Your task to perform on an android device: set default search engine in the chrome app Image 0: 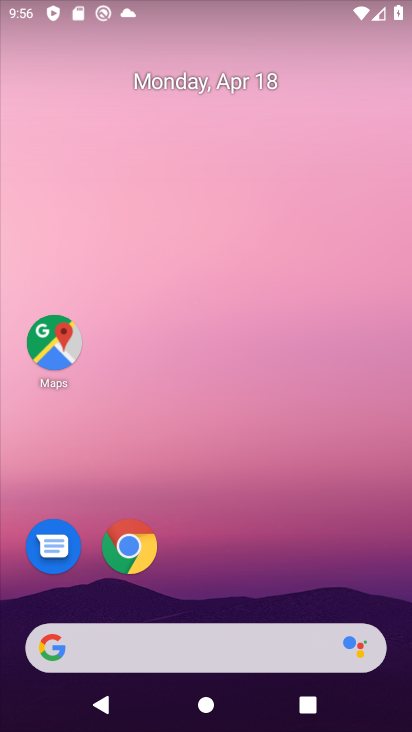
Step 0: click (129, 545)
Your task to perform on an android device: set default search engine in the chrome app Image 1: 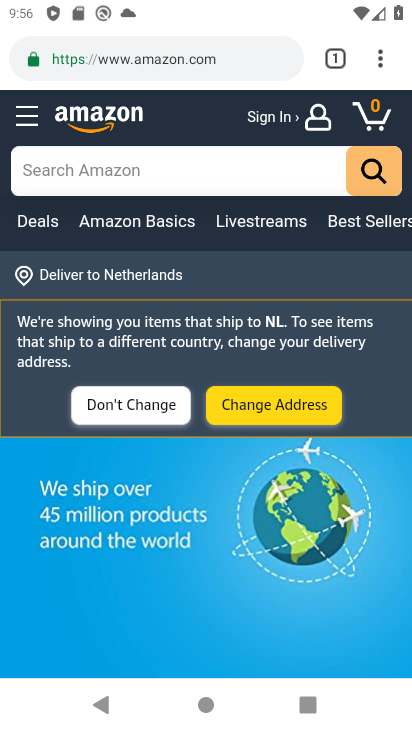
Step 1: click (379, 61)
Your task to perform on an android device: set default search engine in the chrome app Image 2: 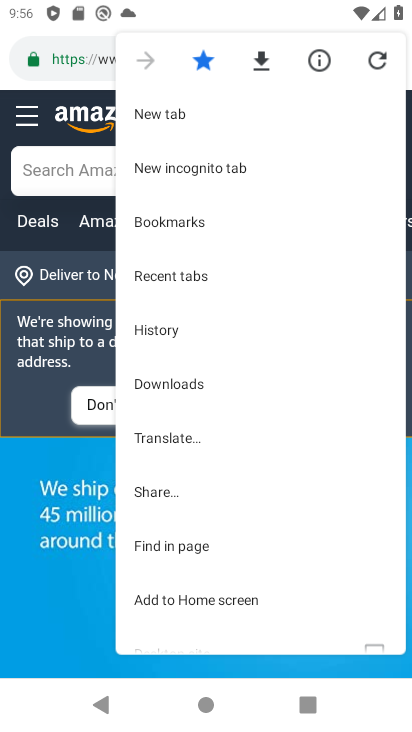
Step 2: drag from (213, 573) to (208, 200)
Your task to perform on an android device: set default search engine in the chrome app Image 3: 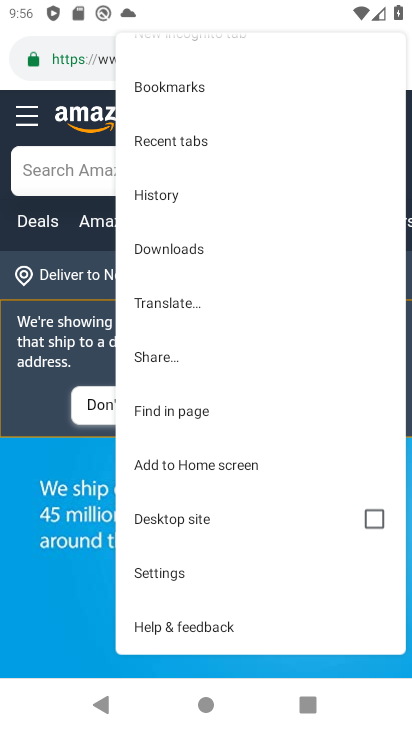
Step 3: click (159, 571)
Your task to perform on an android device: set default search engine in the chrome app Image 4: 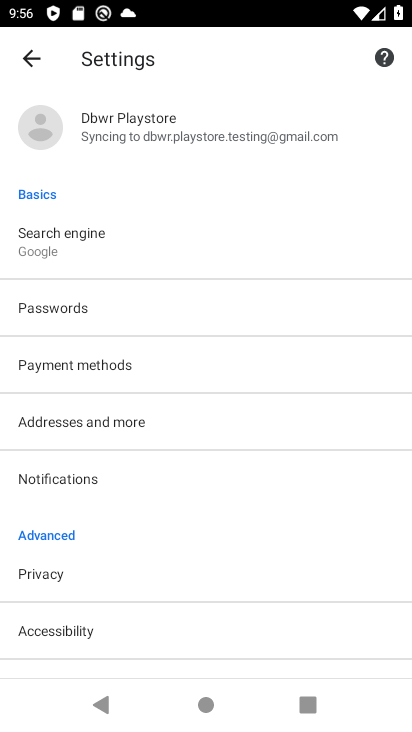
Step 4: click (55, 248)
Your task to perform on an android device: set default search engine in the chrome app Image 5: 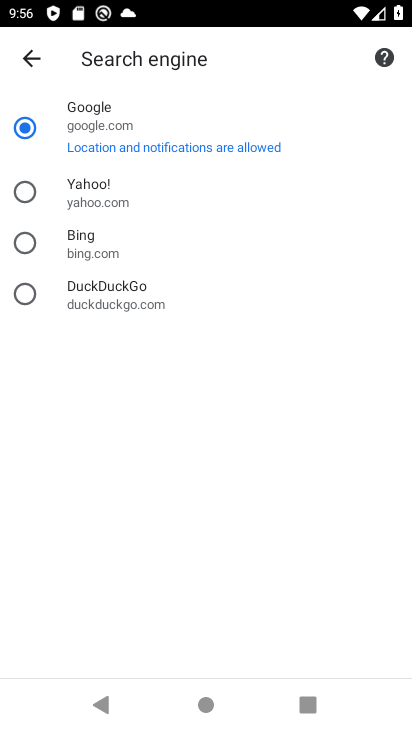
Step 5: click (26, 193)
Your task to perform on an android device: set default search engine in the chrome app Image 6: 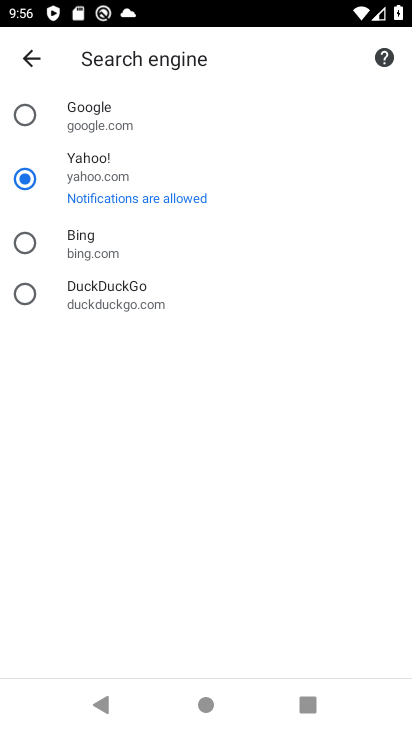
Step 6: task complete